Your task to perform on an android device: find which apps use the phone's location Image 0: 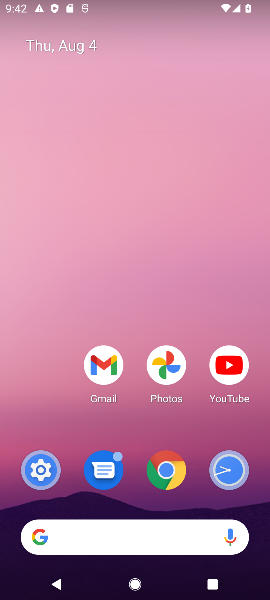
Step 0: click (43, 477)
Your task to perform on an android device: find which apps use the phone's location Image 1: 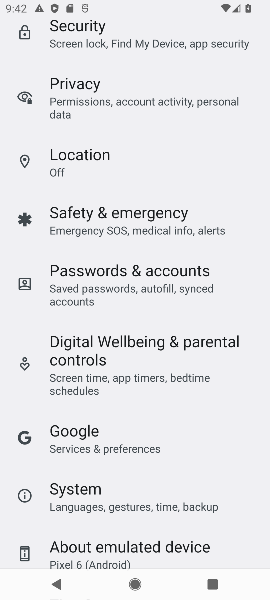
Step 1: click (82, 166)
Your task to perform on an android device: find which apps use the phone's location Image 2: 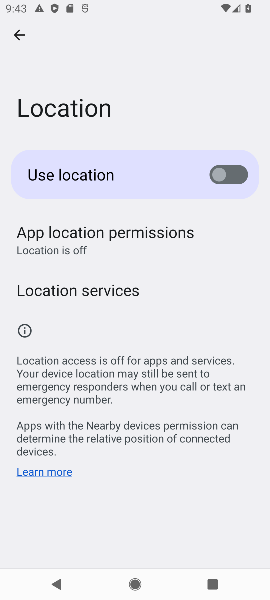
Step 2: click (87, 248)
Your task to perform on an android device: find which apps use the phone's location Image 3: 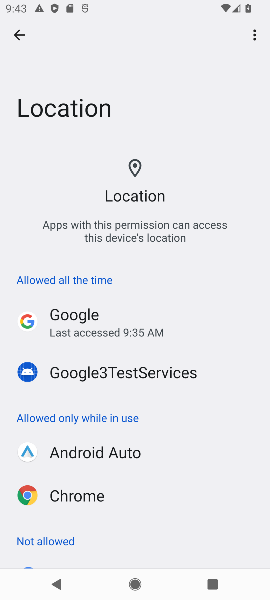
Step 3: task complete